Your task to perform on an android device: Go to sound settings Image 0: 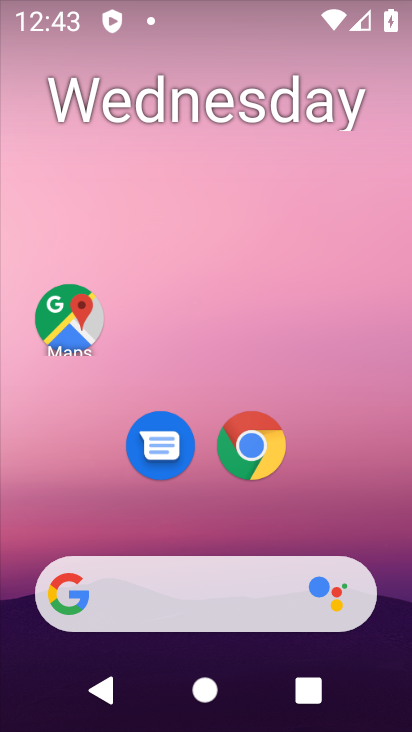
Step 0: drag from (349, 525) to (271, 52)
Your task to perform on an android device: Go to sound settings Image 1: 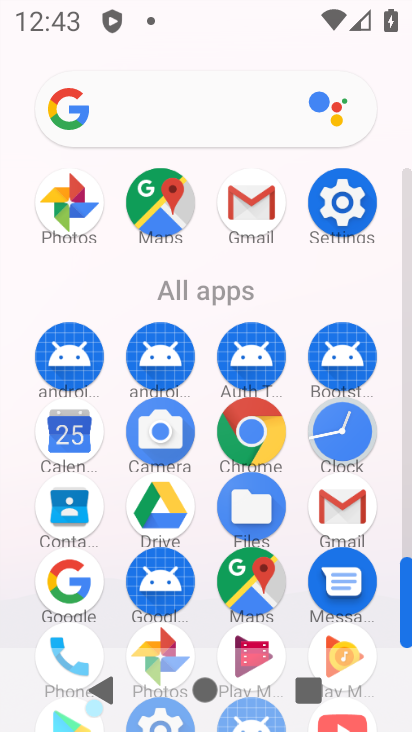
Step 1: click (342, 216)
Your task to perform on an android device: Go to sound settings Image 2: 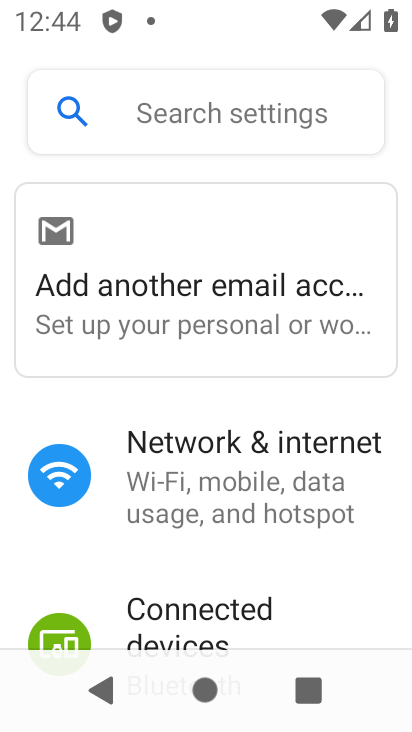
Step 2: drag from (358, 588) to (258, 38)
Your task to perform on an android device: Go to sound settings Image 3: 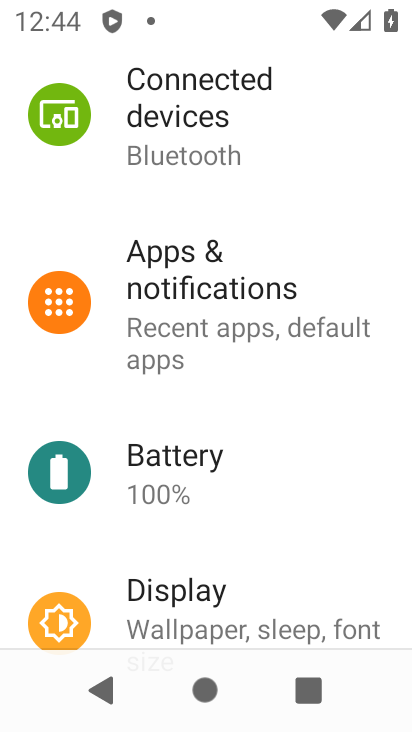
Step 3: drag from (275, 521) to (246, 155)
Your task to perform on an android device: Go to sound settings Image 4: 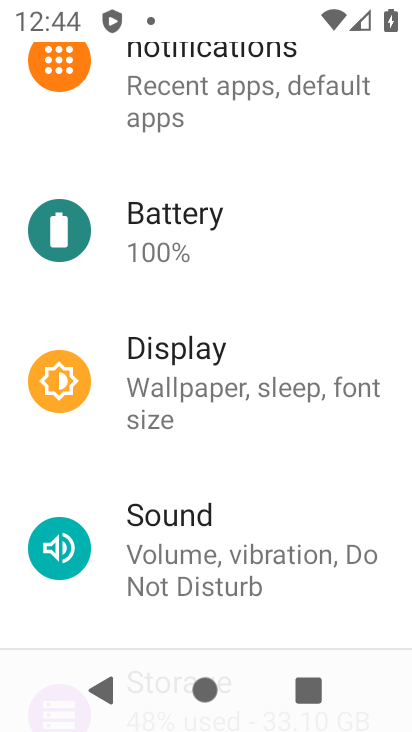
Step 4: click (244, 551)
Your task to perform on an android device: Go to sound settings Image 5: 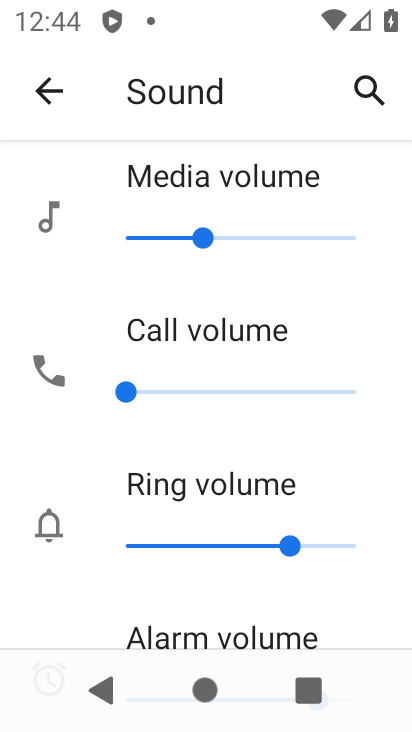
Step 5: task complete